Your task to perform on an android device: turn on the 24-hour format for clock Image 0: 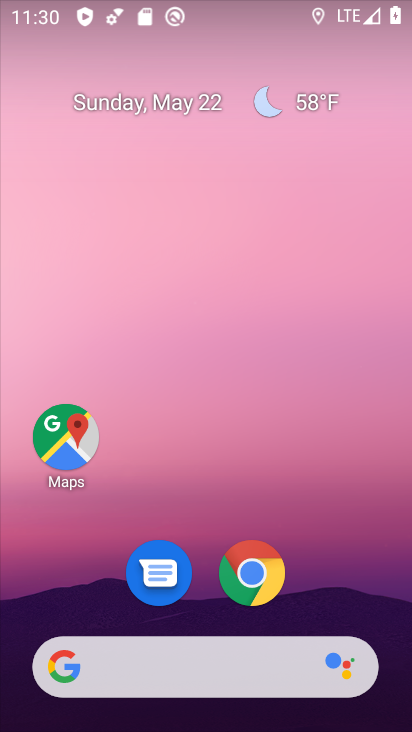
Step 0: drag from (196, 624) to (216, 104)
Your task to perform on an android device: turn on the 24-hour format for clock Image 1: 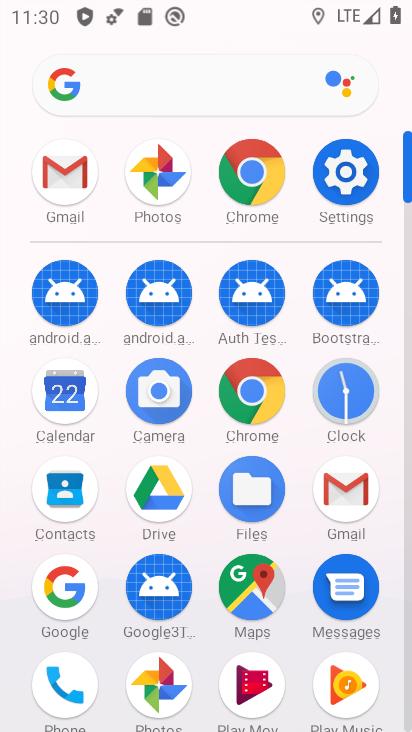
Step 1: click (367, 182)
Your task to perform on an android device: turn on the 24-hour format for clock Image 2: 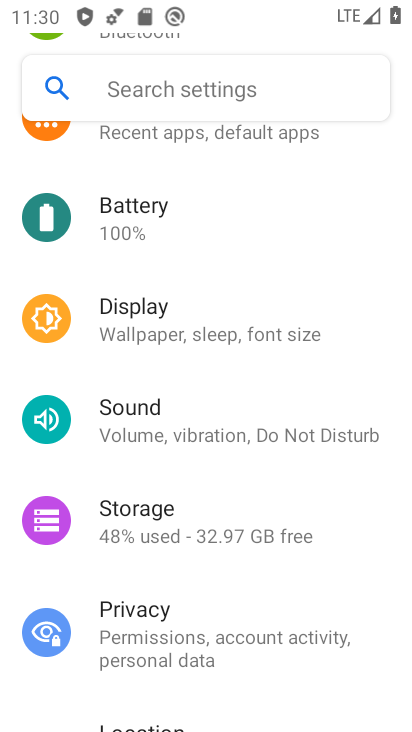
Step 2: drag from (242, 635) to (267, 146)
Your task to perform on an android device: turn on the 24-hour format for clock Image 3: 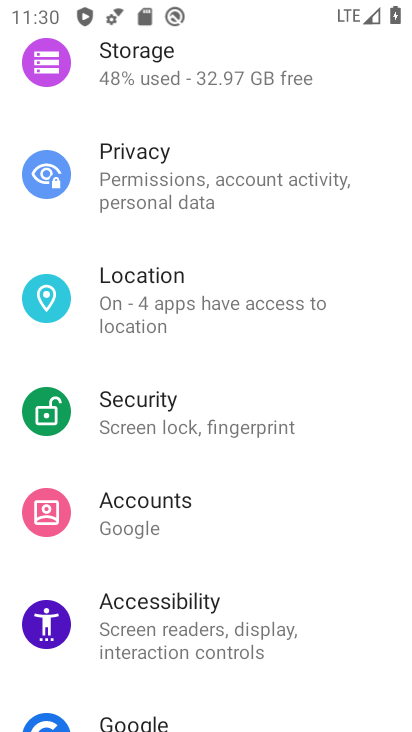
Step 3: drag from (187, 641) to (246, 105)
Your task to perform on an android device: turn on the 24-hour format for clock Image 4: 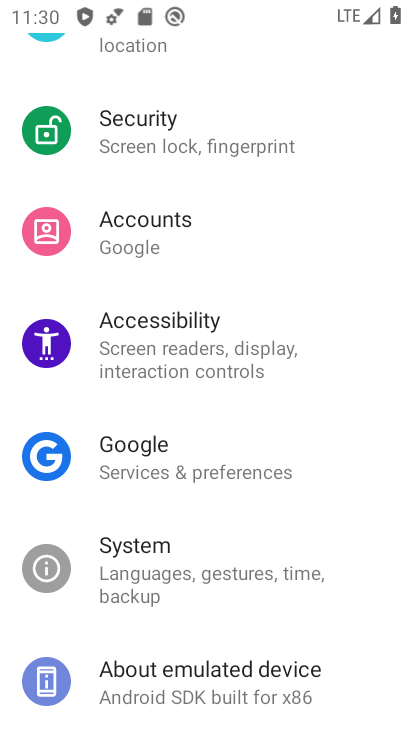
Step 4: click (199, 582)
Your task to perform on an android device: turn on the 24-hour format for clock Image 5: 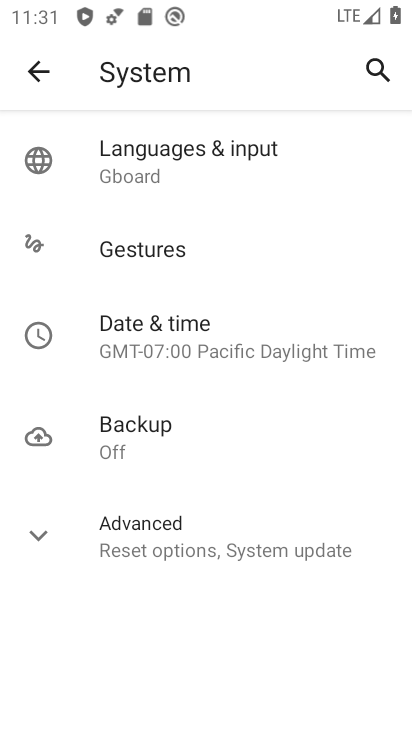
Step 5: drag from (230, 565) to (230, 440)
Your task to perform on an android device: turn on the 24-hour format for clock Image 6: 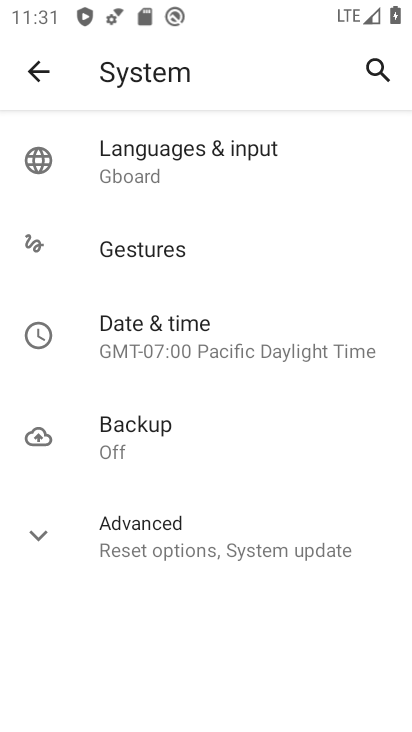
Step 6: click (209, 346)
Your task to perform on an android device: turn on the 24-hour format for clock Image 7: 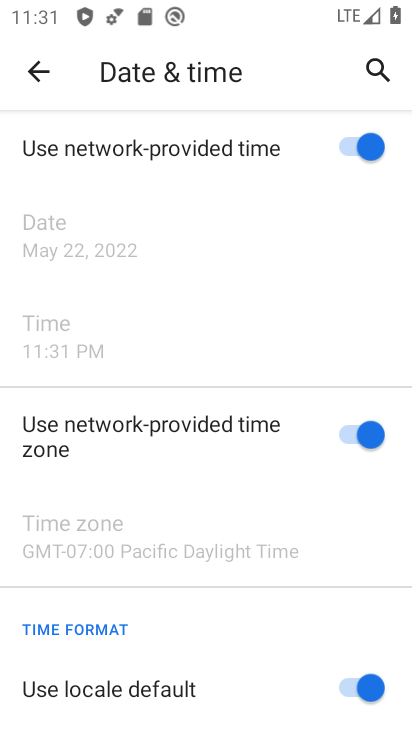
Step 7: drag from (252, 625) to (292, 306)
Your task to perform on an android device: turn on the 24-hour format for clock Image 8: 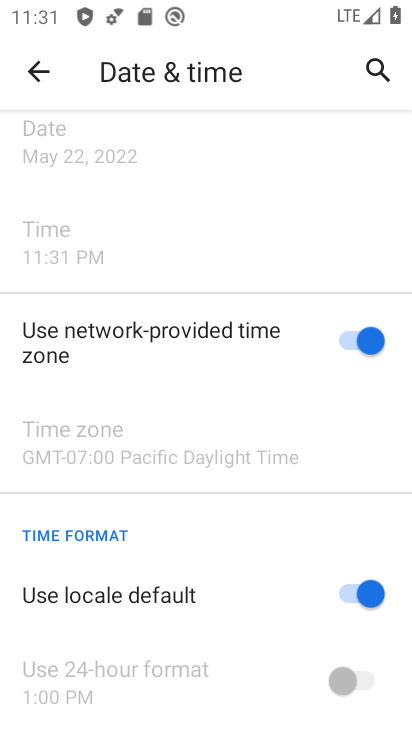
Step 8: click (344, 580)
Your task to perform on an android device: turn on the 24-hour format for clock Image 9: 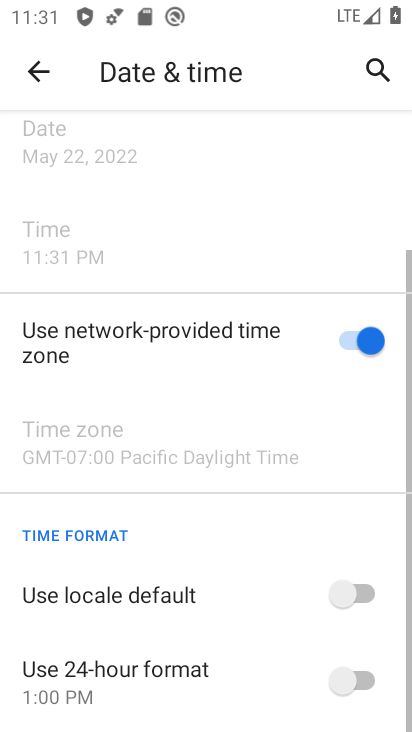
Step 9: click (385, 677)
Your task to perform on an android device: turn on the 24-hour format for clock Image 10: 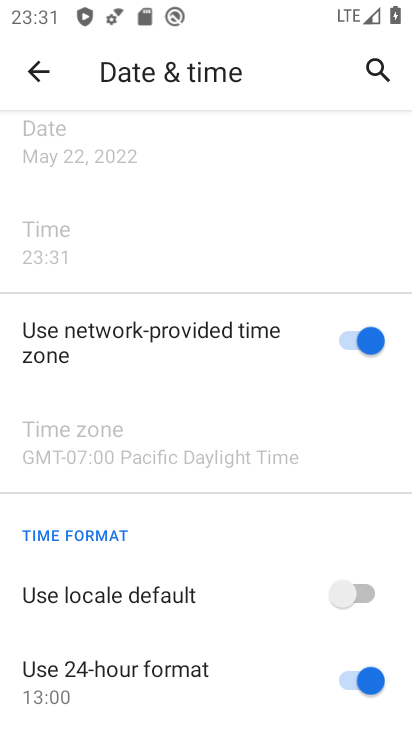
Step 10: task complete